Your task to perform on an android device: Check the news Image 0: 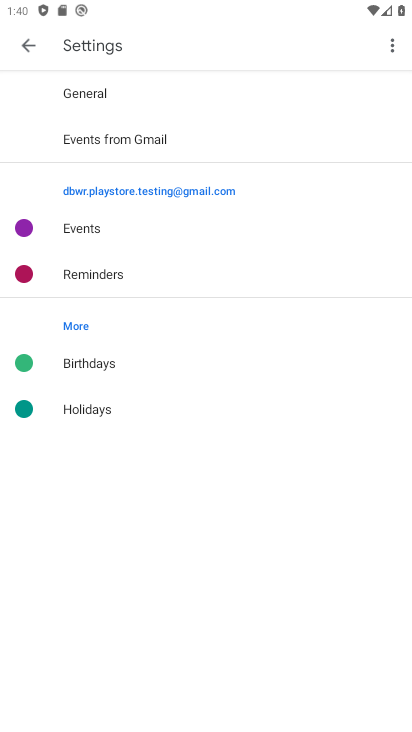
Step 0: press back button
Your task to perform on an android device: Check the news Image 1: 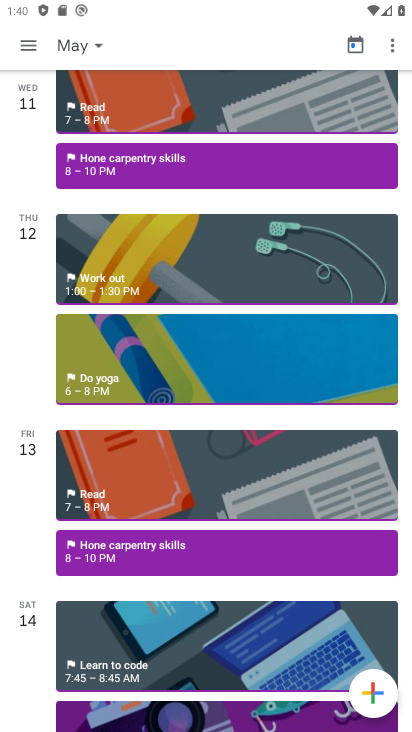
Step 1: press back button
Your task to perform on an android device: Check the news Image 2: 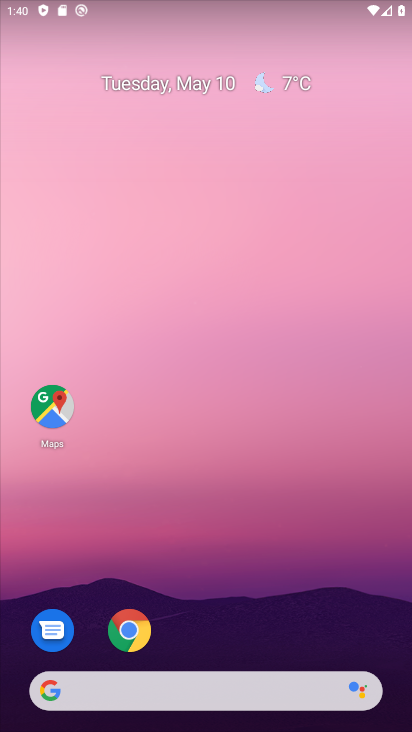
Step 2: click (124, 630)
Your task to perform on an android device: Check the news Image 3: 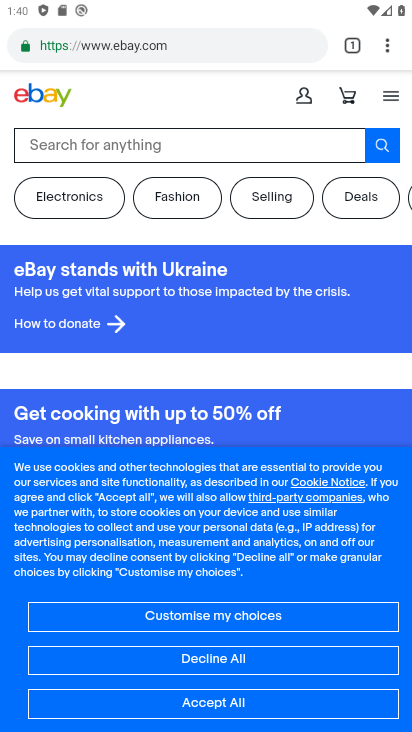
Step 3: click (153, 46)
Your task to perform on an android device: Check the news Image 4: 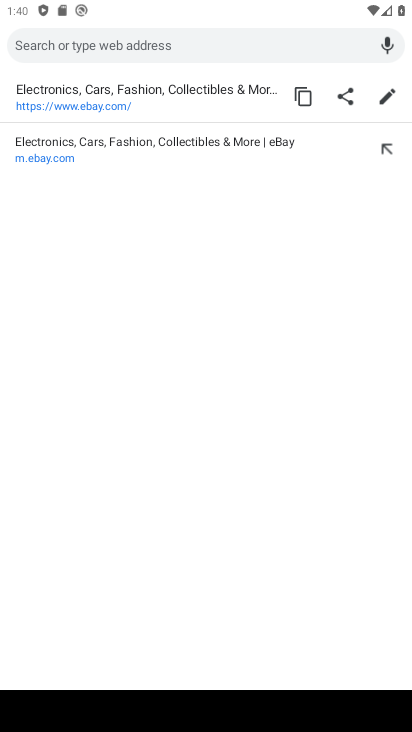
Step 4: type "Check the news"
Your task to perform on an android device: Check the news Image 5: 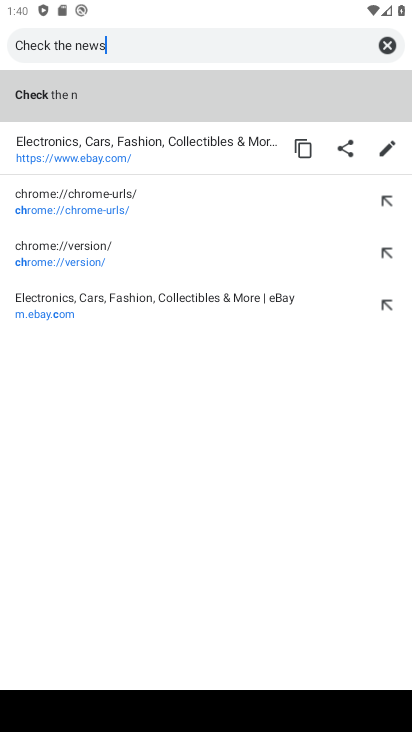
Step 5: type ""
Your task to perform on an android device: Check the news Image 6: 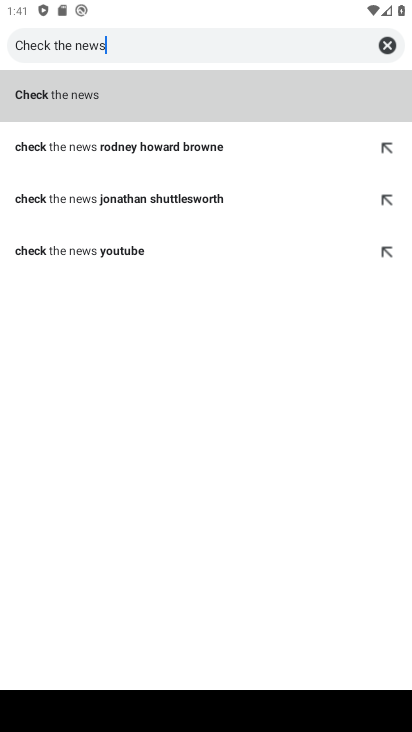
Step 6: click (113, 97)
Your task to perform on an android device: Check the news Image 7: 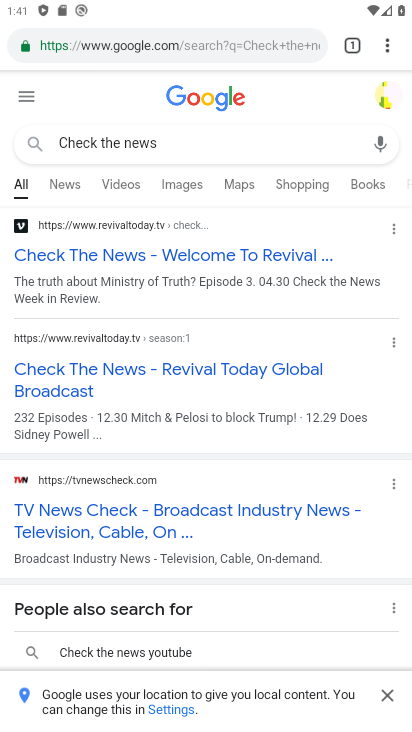
Step 7: click (62, 186)
Your task to perform on an android device: Check the news Image 8: 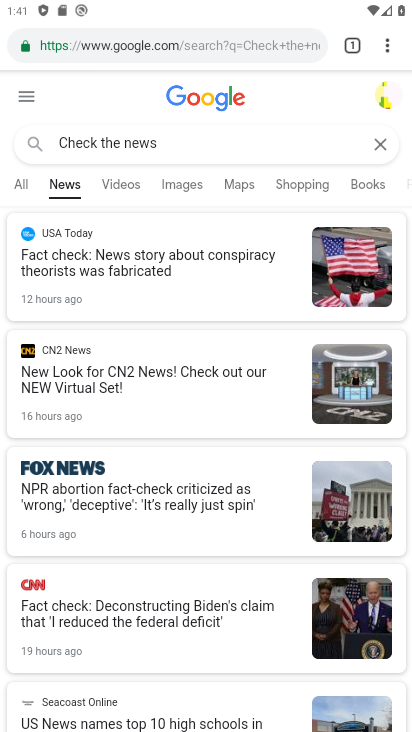
Step 8: task complete